Your task to perform on an android device: toggle priority inbox in the gmail app Image 0: 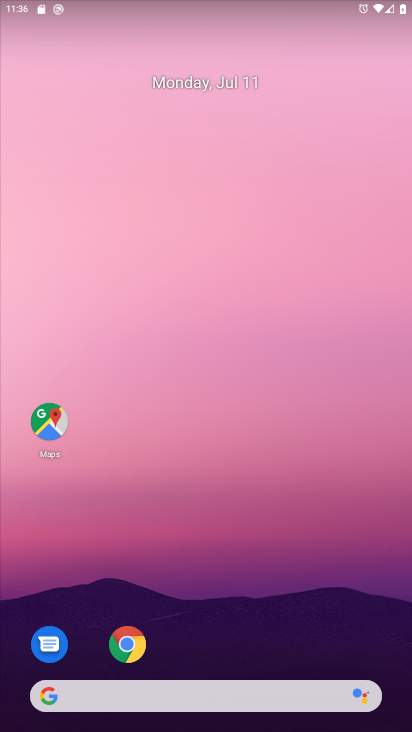
Step 0: drag from (253, 543) to (287, 400)
Your task to perform on an android device: toggle priority inbox in the gmail app Image 1: 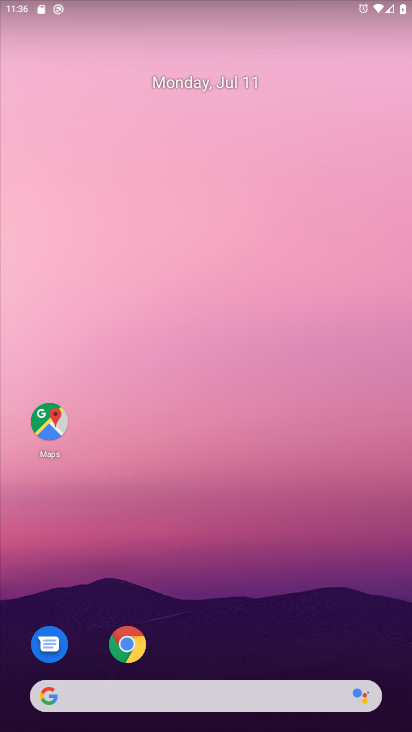
Step 1: drag from (289, 545) to (244, 59)
Your task to perform on an android device: toggle priority inbox in the gmail app Image 2: 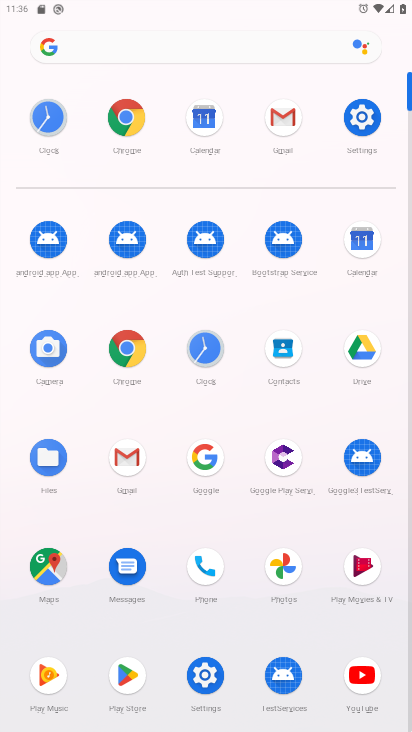
Step 2: click (127, 463)
Your task to perform on an android device: toggle priority inbox in the gmail app Image 3: 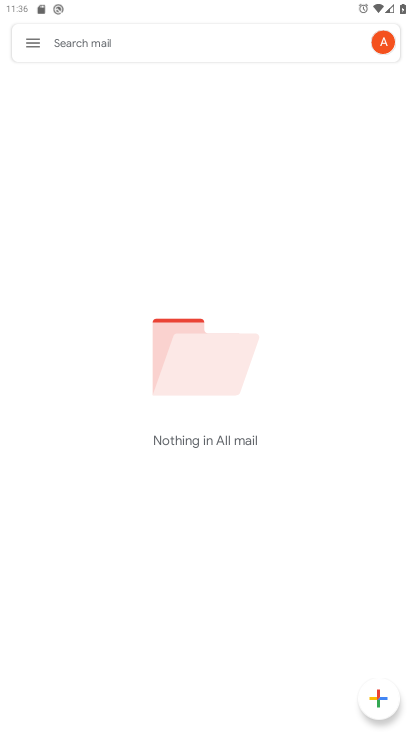
Step 3: click (30, 43)
Your task to perform on an android device: toggle priority inbox in the gmail app Image 4: 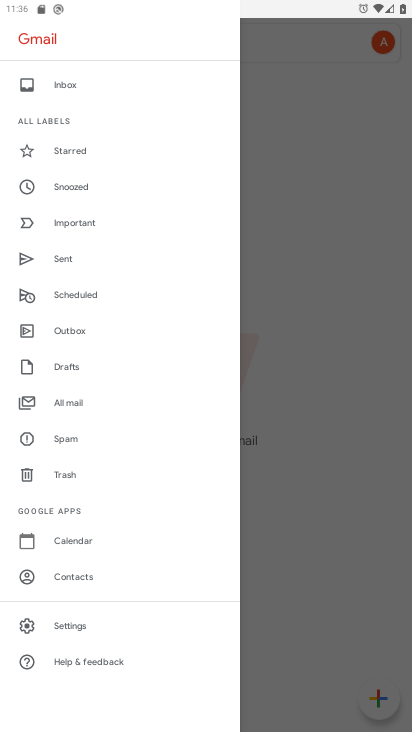
Step 4: click (76, 622)
Your task to perform on an android device: toggle priority inbox in the gmail app Image 5: 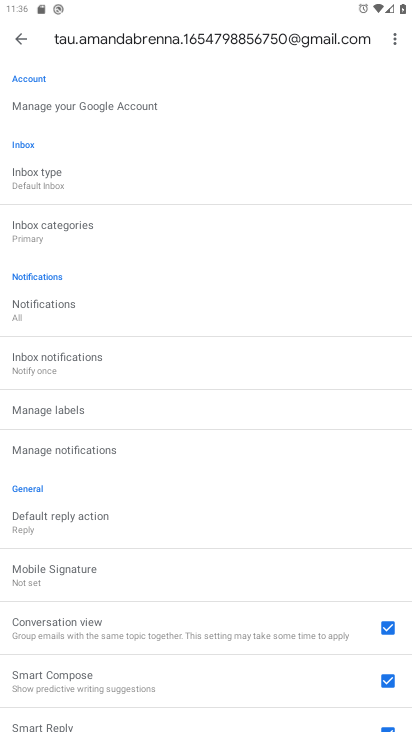
Step 5: click (109, 184)
Your task to perform on an android device: toggle priority inbox in the gmail app Image 6: 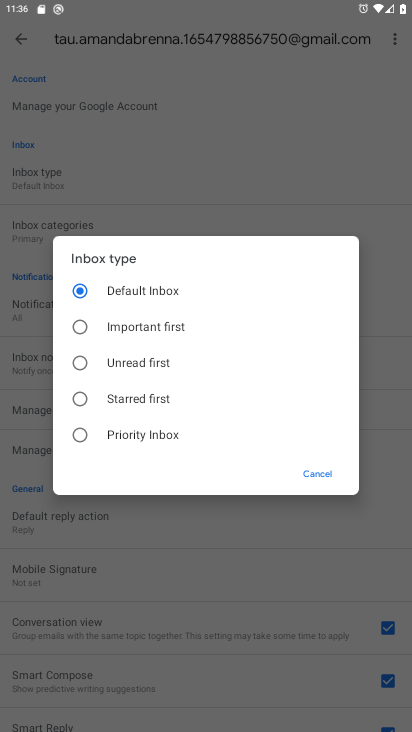
Step 6: click (113, 438)
Your task to perform on an android device: toggle priority inbox in the gmail app Image 7: 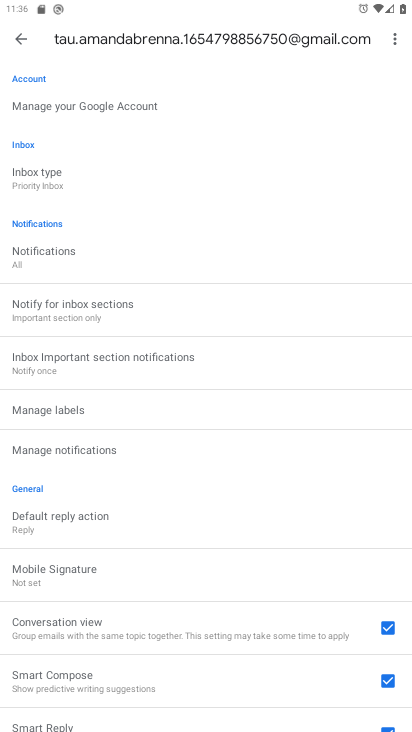
Step 7: task complete